Your task to perform on an android device: Open Yahoo.com Image 0: 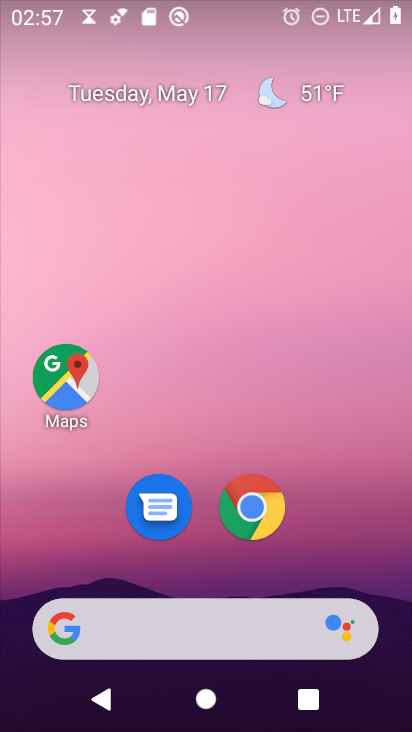
Step 0: click (242, 499)
Your task to perform on an android device: Open Yahoo.com Image 1: 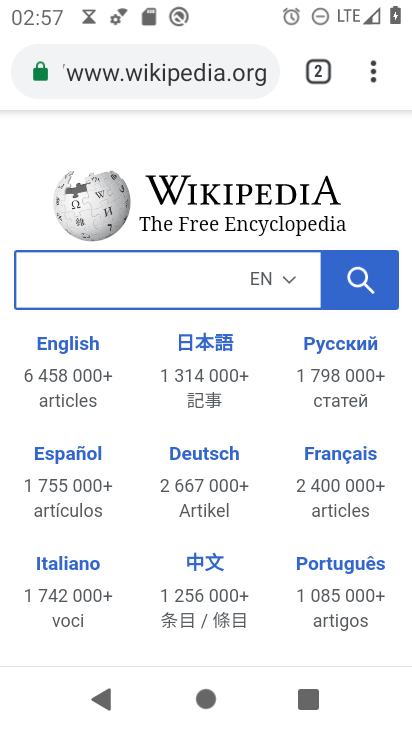
Step 1: click (114, 73)
Your task to perform on an android device: Open Yahoo.com Image 2: 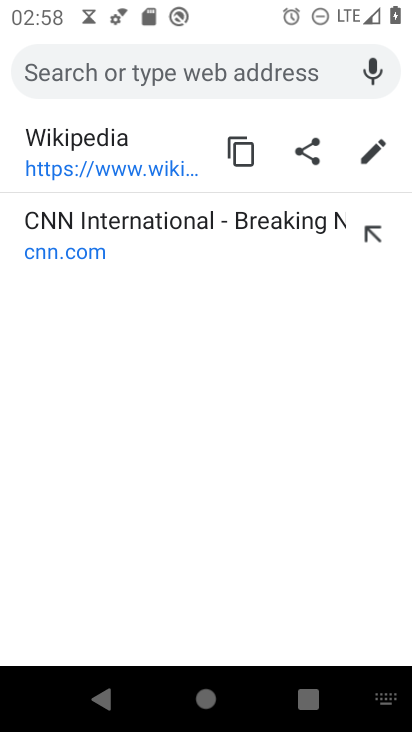
Step 2: type "yahoo.com"
Your task to perform on an android device: Open Yahoo.com Image 3: 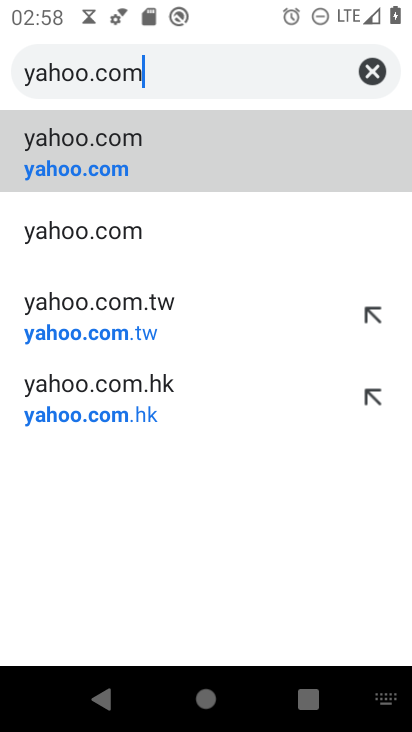
Step 3: click (131, 141)
Your task to perform on an android device: Open Yahoo.com Image 4: 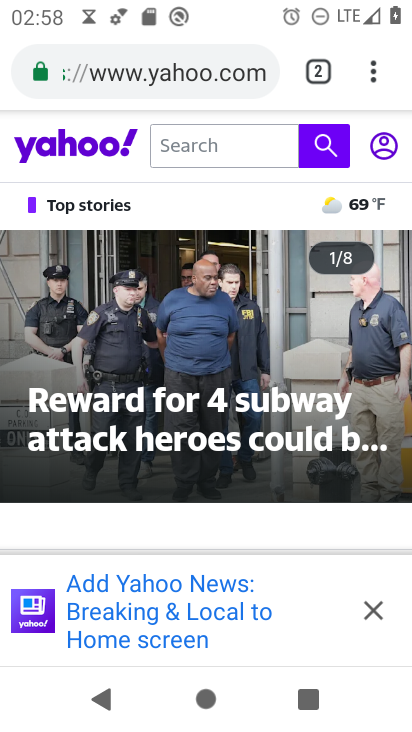
Step 4: task complete